Your task to perform on an android device: Open Yahoo.com Image 0: 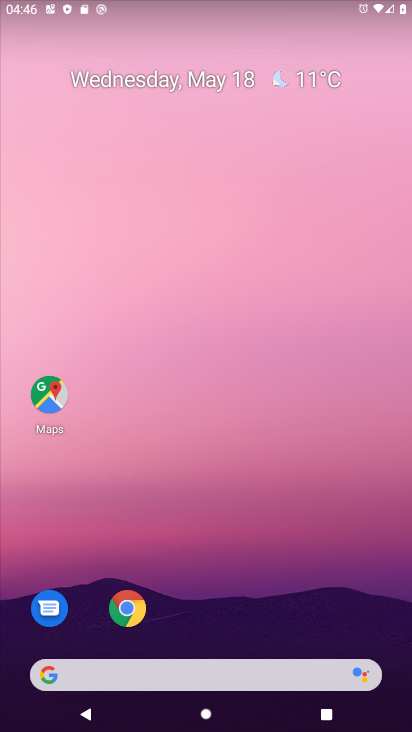
Step 0: click (116, 605)
Your task to perform on an android device: Open Yahoo.com Image 1: 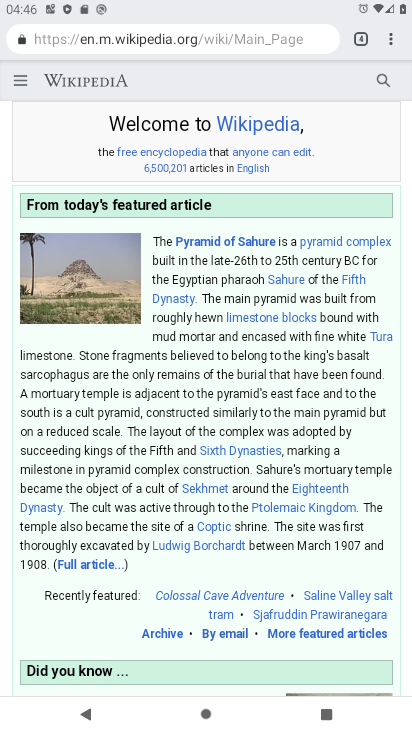
Step 1: click (365, 44)
Your task to perform on an android device: Open Yahoo.com Image 2: 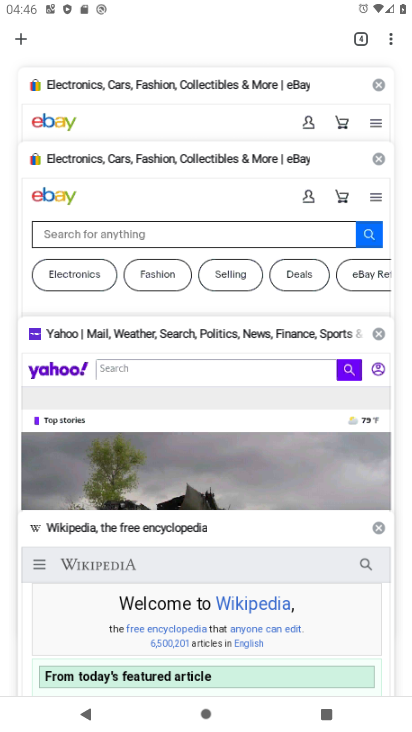
Step 2: click (127, 388)
Your task to perform on an android device: Open Yahoo.com Image 3: 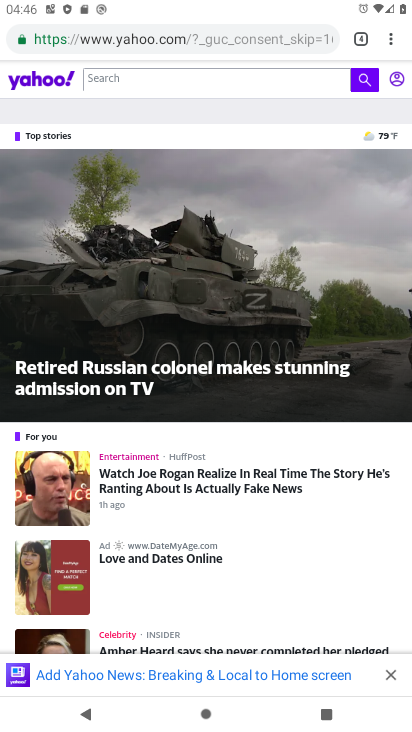
Step 3: task complete